Your task to perform on an android device: toggle javascript in the chrome app Image 0: 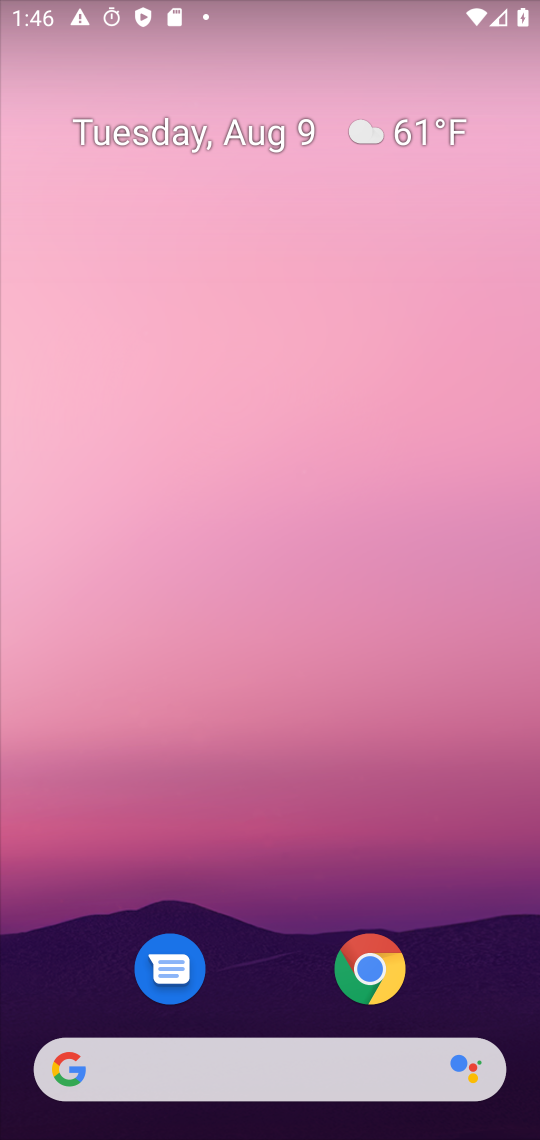
Step 0: press home button
Your task to perform on an android device: toggle javascript in the chrome app Image 1: 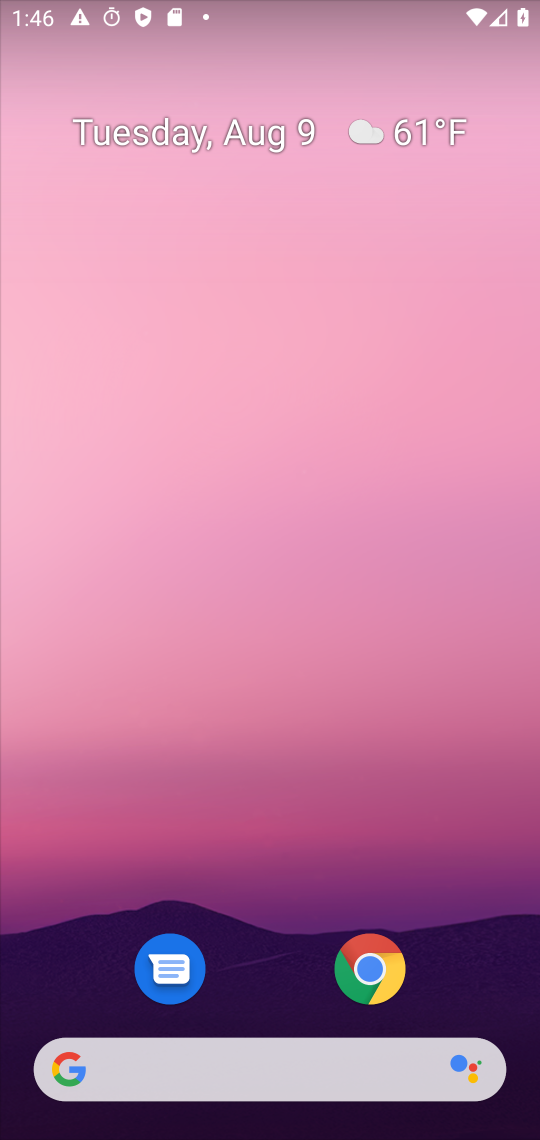
Step 1: drag from (367, 1124) to (485, 441)
Your task to perform on an android device: toggle javascript in the chrome app Image 2: 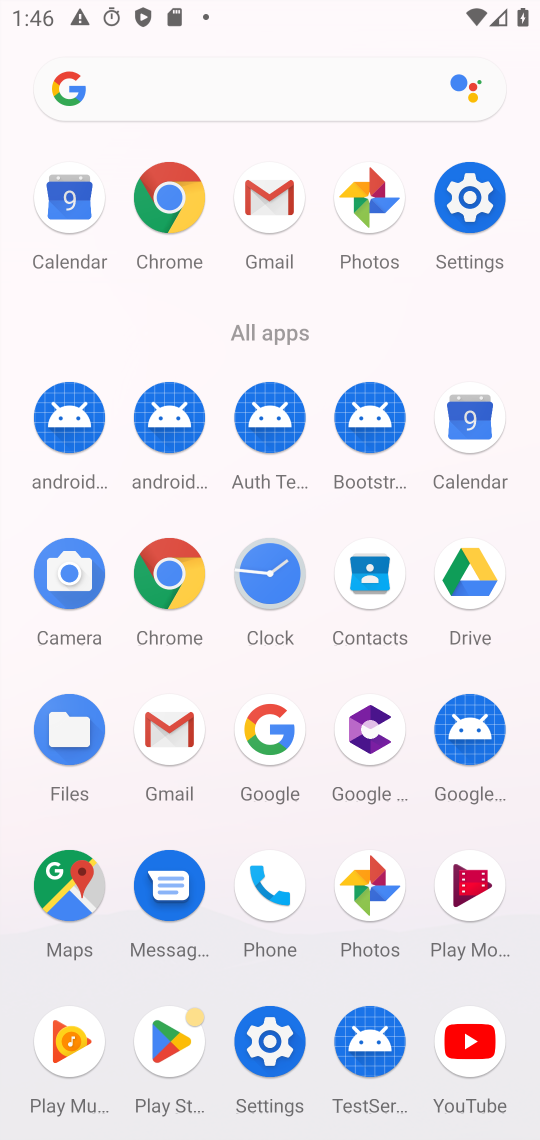
Step 2: click (185, 203)
Your task to perform on an android device: toggle javascript in the chrome app Image 3: 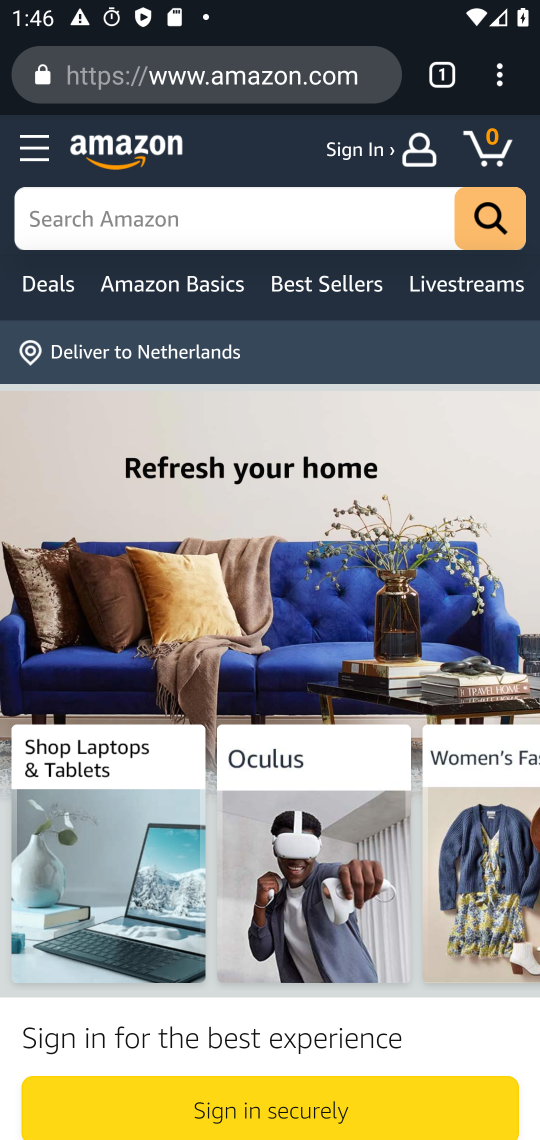
Step 3: click (493, 80)
Your task to perform on an android device: toggle javascript in the chrome app Image 4: 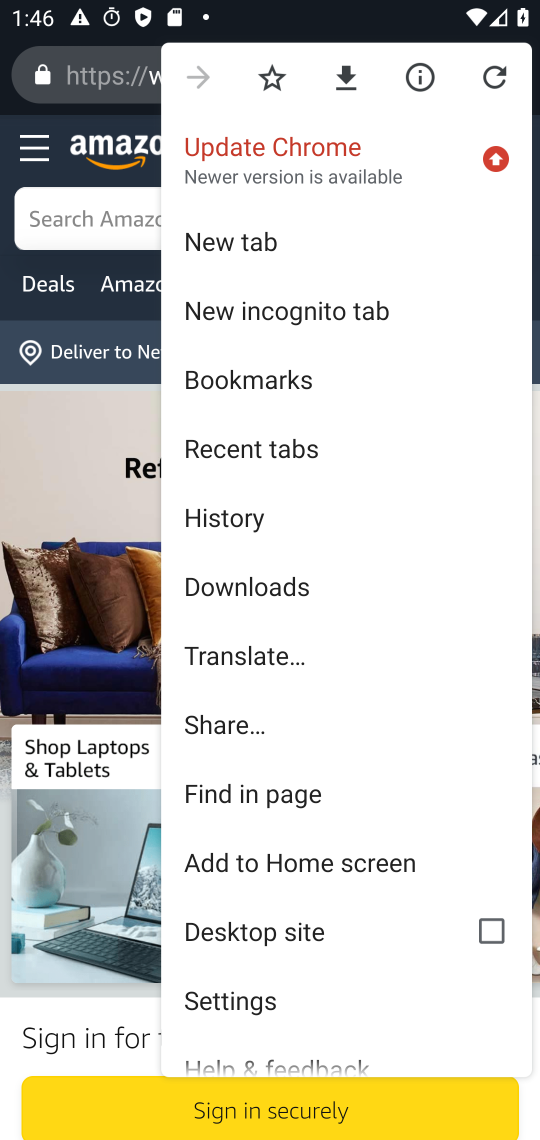
Step 4: click (221, 992)
Your task to perform on an android device: toggle javascript in the chrome app Image 5: 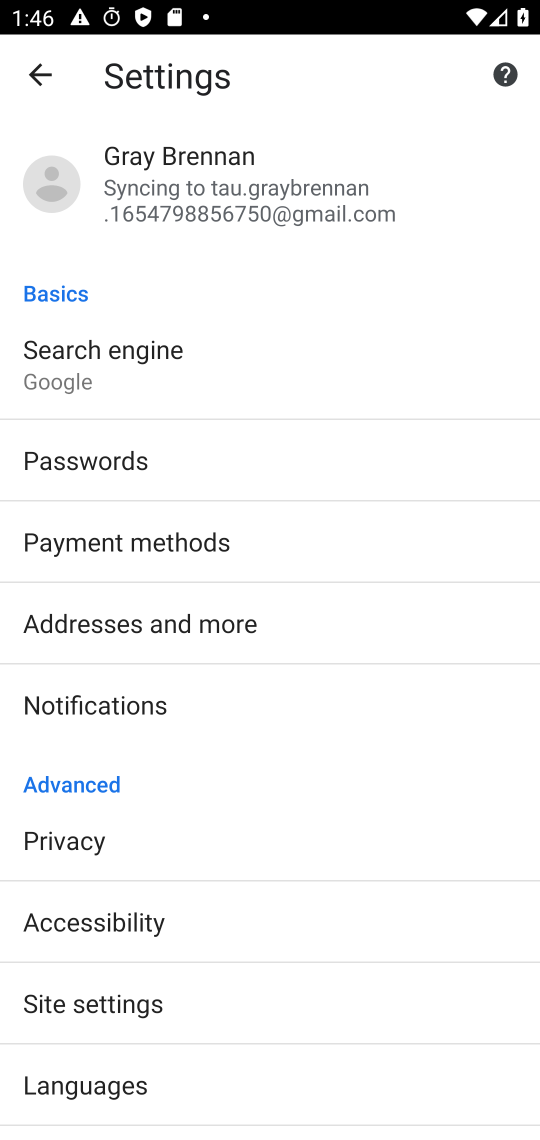
Step 5: click (116, 1016)
Your task to perform on an android device: toggle javascript in the chrome app Image 6: 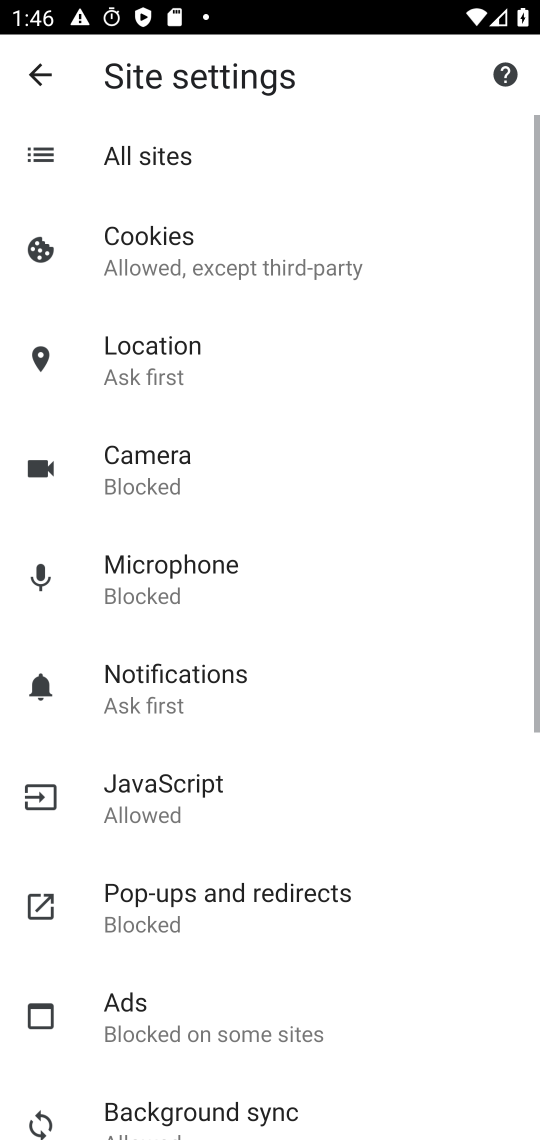
Step 6: click (198, 785)
Your task to perform on an android device: toggle javascript in the chrome app Image 7: 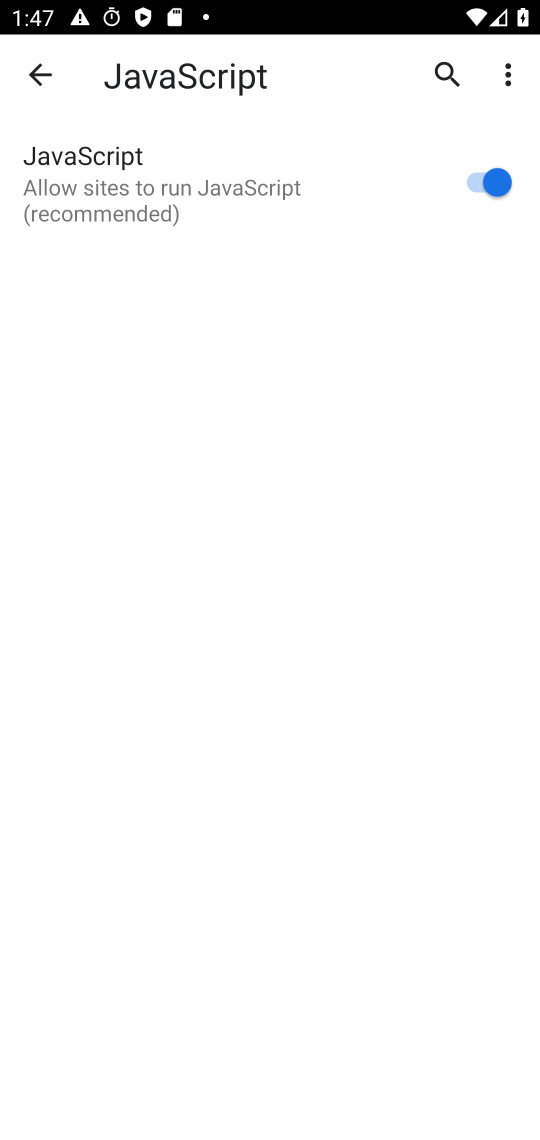
Step 7: task complete